Your task to perform on an android device: turn on wifi Image 0: 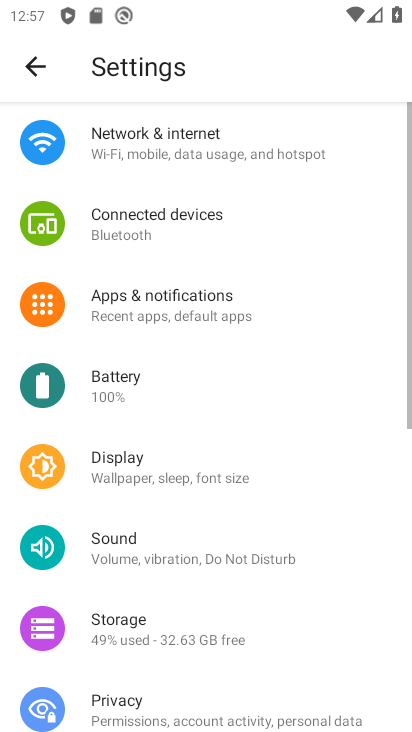
Step 0: press home button
Your task to perform on an android device: turn on wifi Image 1: 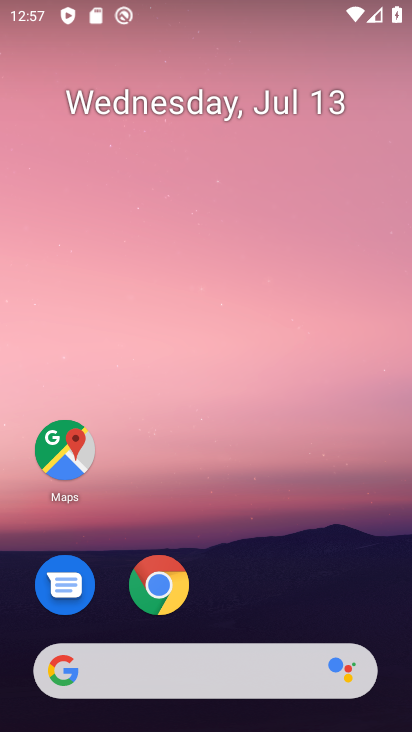
Step 1: drag from (163, 657) to (281, 41)
Your task to perform on an android device: turn on wifi Image 2: 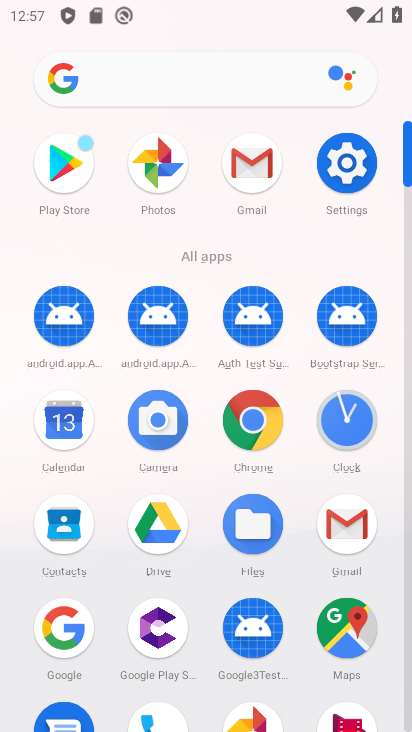
Step 2: click (345, 176)
Your task to perform on an android device: turn on wifi Image 3: 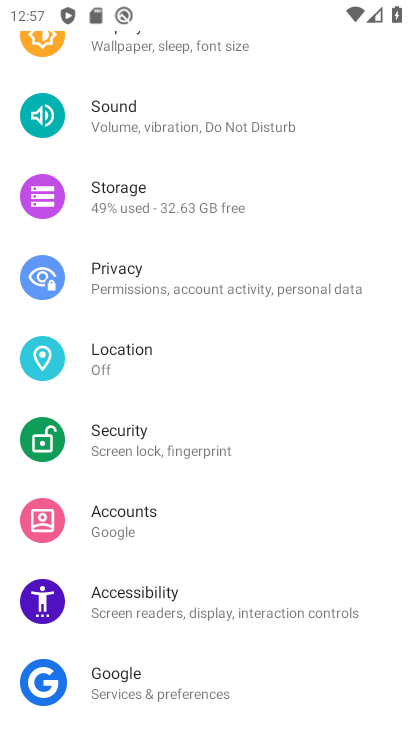
Step 3: drag from (289, 199) to (207, 675)
Your task to perform on an android device: turn on wifi Image 4: 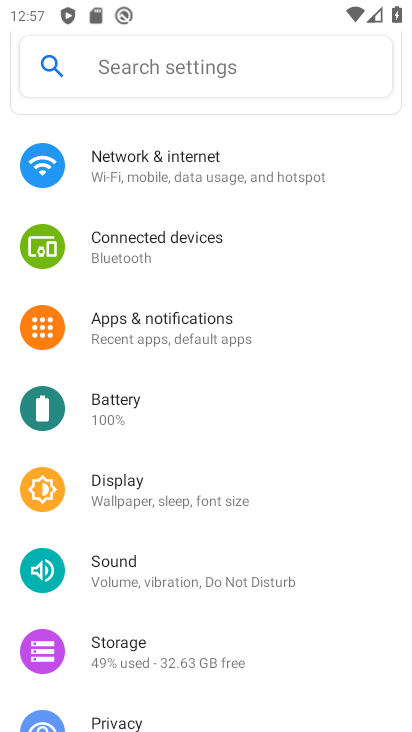
Step 4: click (228, 163)
Your task to perform on an android device: turn on wifi Image 5: 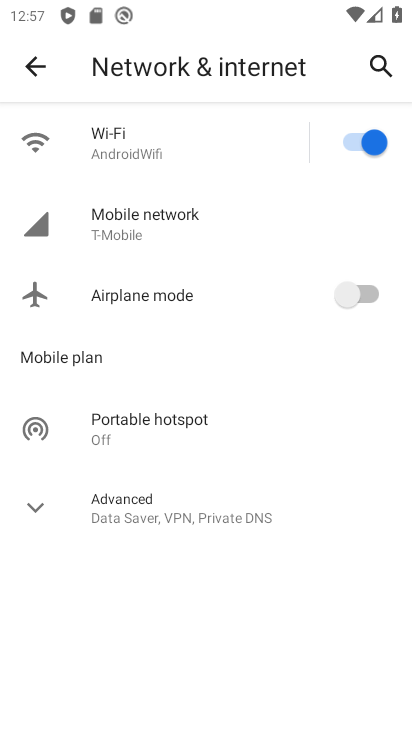
Step 5: task complete